Your task to perform on an android device: Turn on the flashlight Image 0: 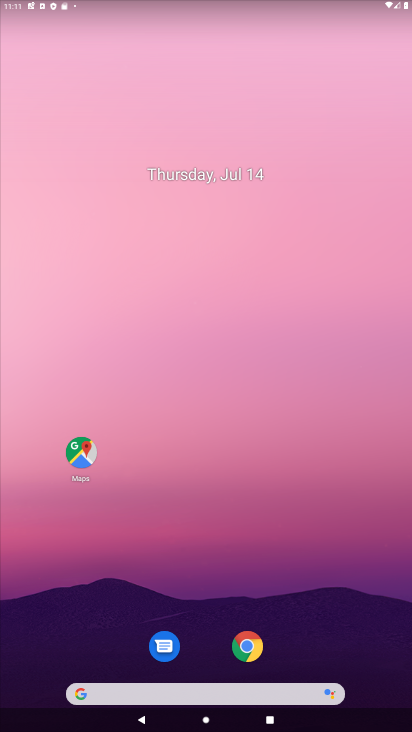
Step 0: drag from (203, 624) to (94, 196)
Your task to perform on an android device: Turn on the flashlight Image 1: 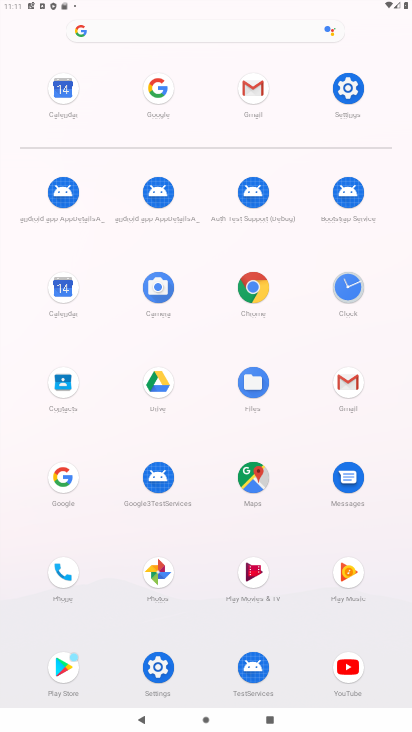
Step 1: click (359, 94)
Your task to perform on an android device: Turn on the flashlight Image 2: 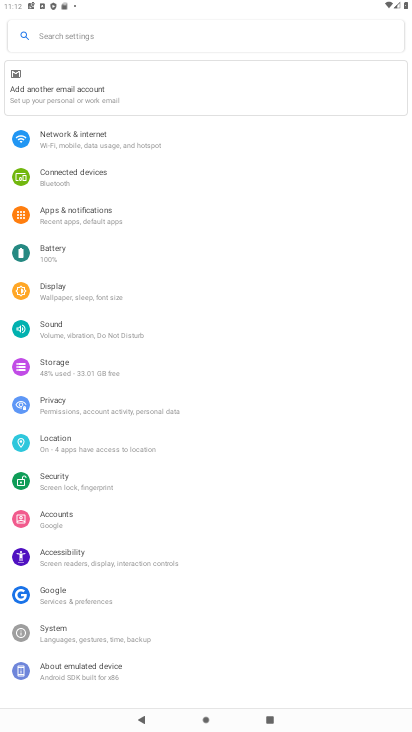
Step 2: task complete